Your task to perform on an android device: toggle airplane mode Image 0: 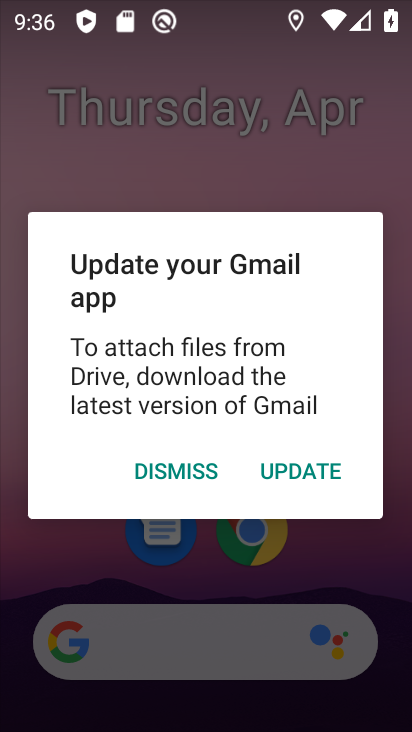
Step 0: press home button
Your task to perform on an android device: toggle airplane mode Image 1: 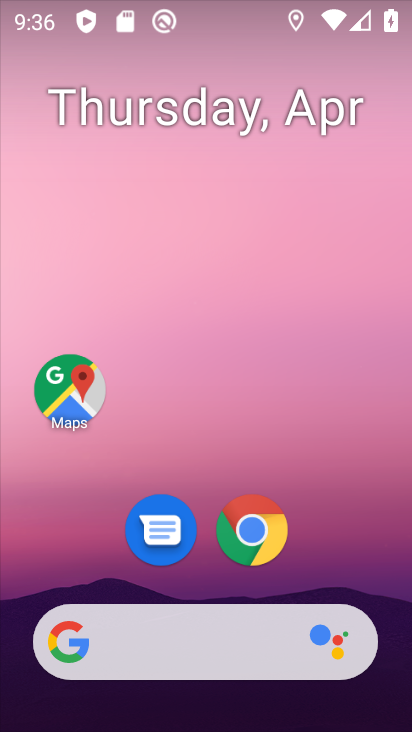
Step 1: drag from (238, 3) to (307, 481)
Your task to perform on an android device: toggle airplane mode Image 2: 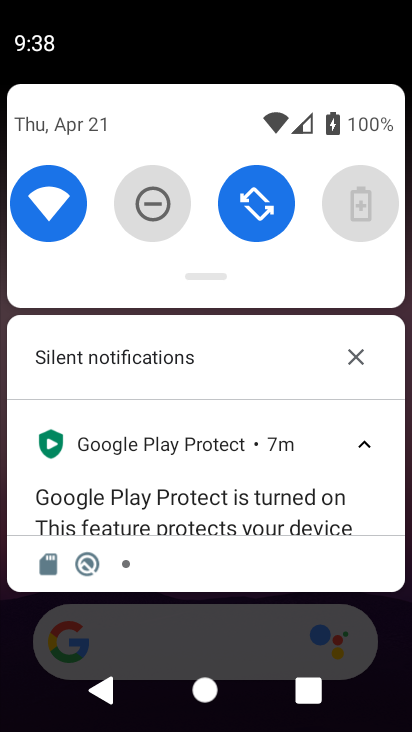
Step 2: drag from (275, 245) to (262, 551)
Your task to perform on an android device: toggle airplane mode Image 3: 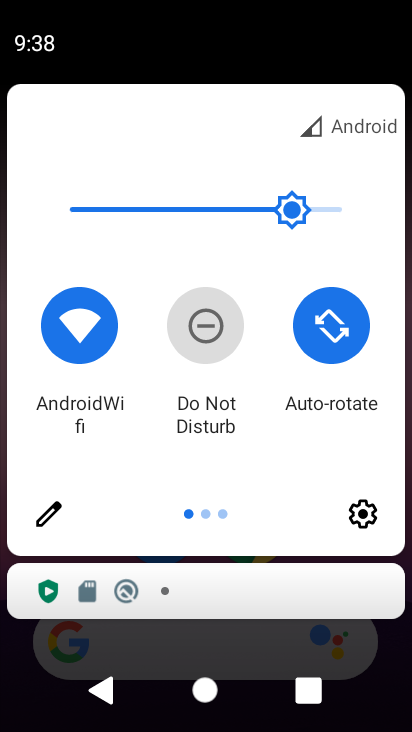
Step 3: drag from (320, 429) to (2, 387)
Your task to perform on an android device: toggle airplane mode Image 4: 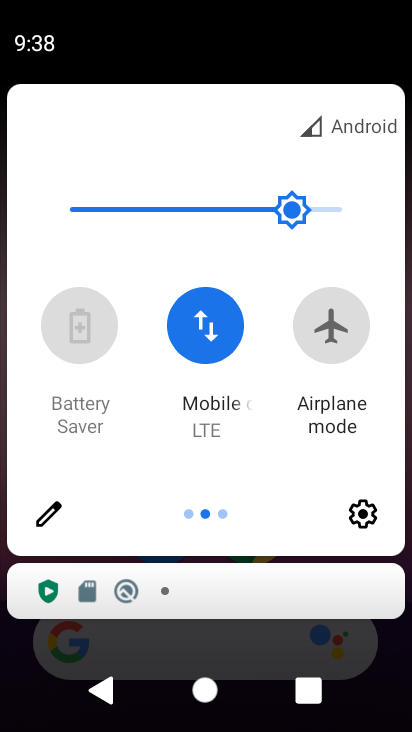
Step 4: click (315, 326)
Your task to perform on an android device: toggle airplane mode Image 5: 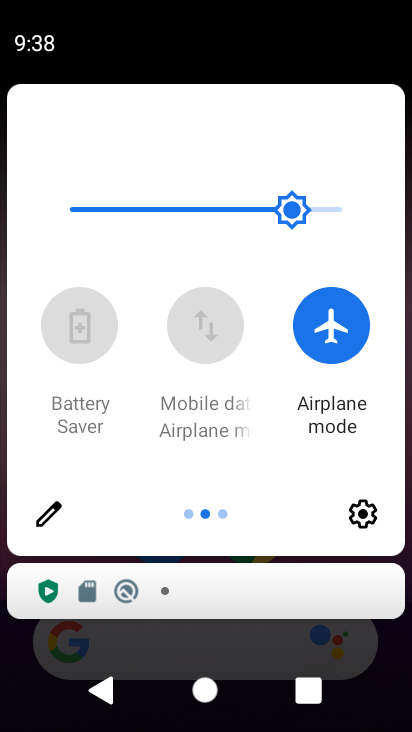
Step 5: task complete